Your task to perform on an android device: open a new tab in the chrome app Image 0: 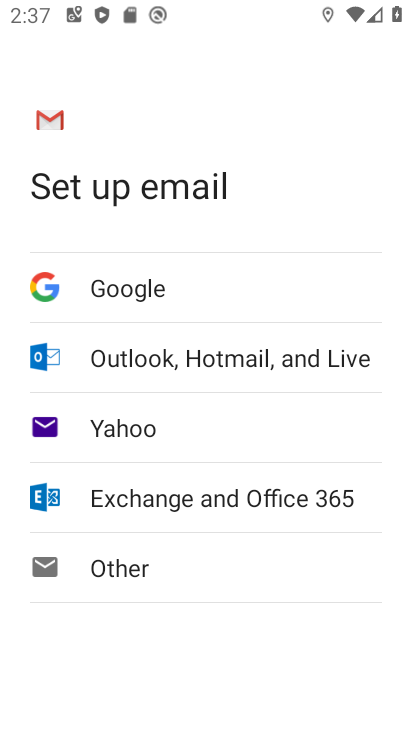
Step 0: drag from (210, 669) to (262, 145)
Your task to perform on an android device: open a new tab in the chrome app Image 1: 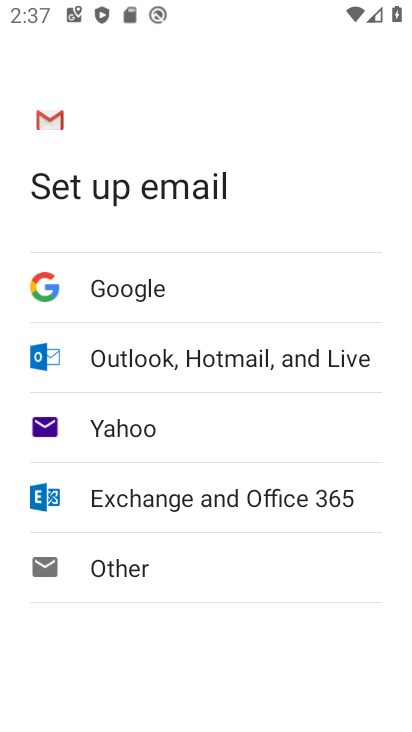
Step 1: press home button
Your task to perform on an android device: open a new tab in the chrome app Image 2: 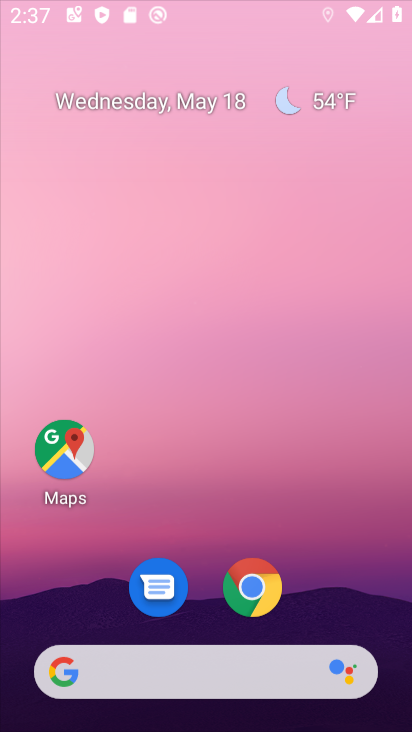
Step 2: drag from (203, 652) to (219, 51)
Your task to perform on an android device: open a new tab in the chrome app Image 3: 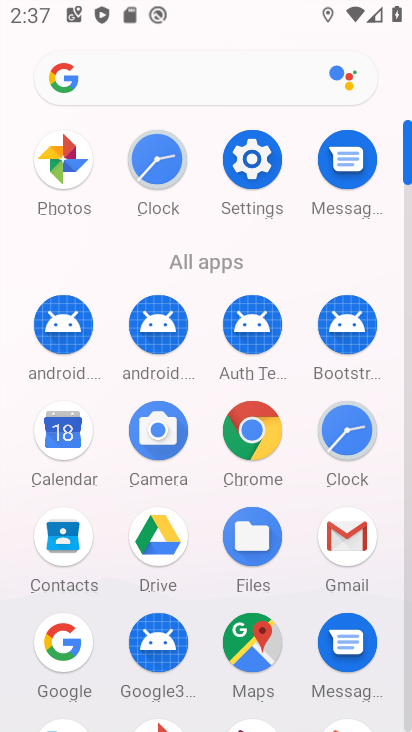
Step 3: click (253, 442)
Your task to perform on an android device: open a new tab in the chrome app Image 4: 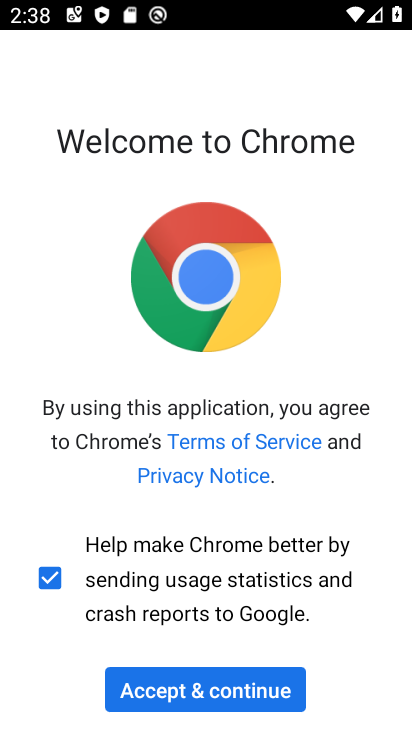
Step 4: click (163, 685)
Your task to perform on an android device: open a new tab in the chrome app Image 5: 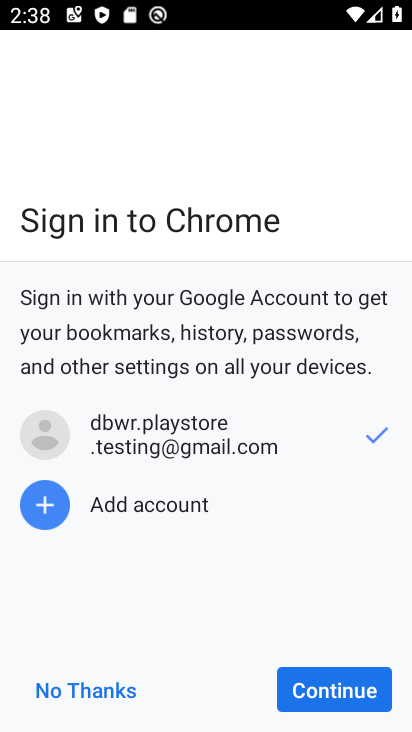
Step 5: click (303, 701)
Your task to perform on an android device: open a new tab in the chrome app Image 6: 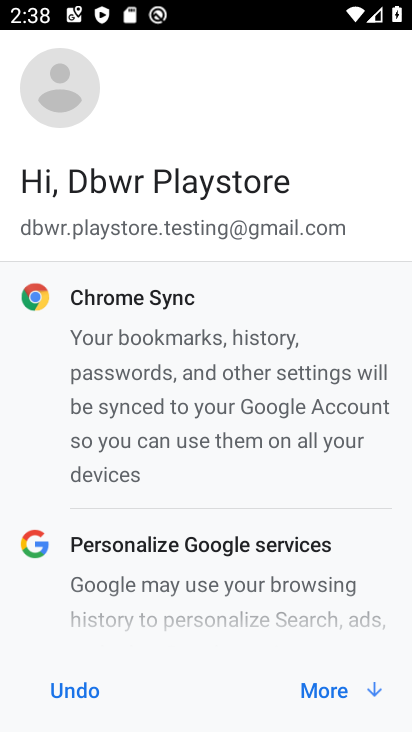
Step 6: click (309, 694)
Your task to perform on an android device: open a new tab in the chrome app Image 7: 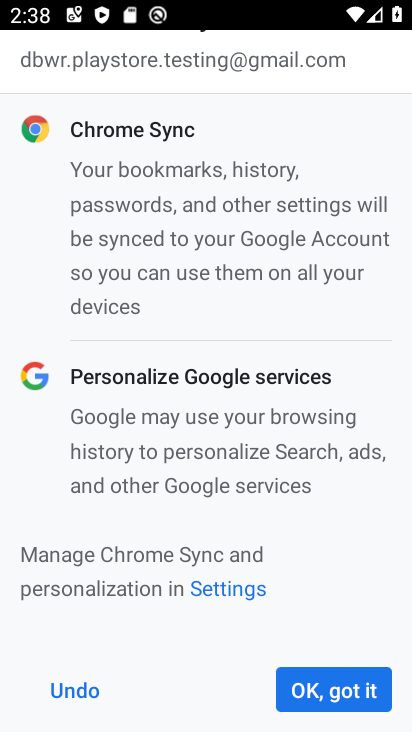
Step 7: click (307, 686)
Your task to perform on an android device: open a new tab in the chrome app Image 8: 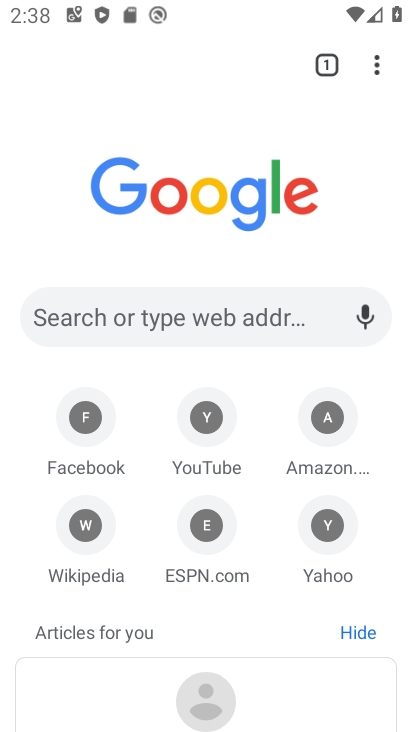
Step 8: click (384, 56)
Your task to perform on an android device: open a new tab in the chrome app Image 9: 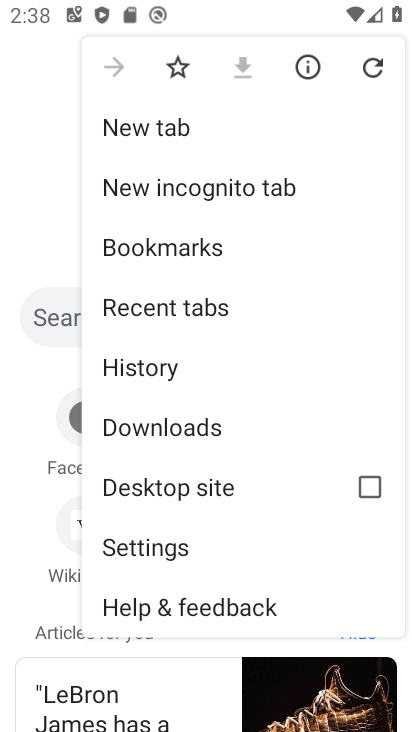
Step 9: drag from (233, 485) to (246, 12)
Your task to perform on an android device: open a new tab in the chrome app Image 10: 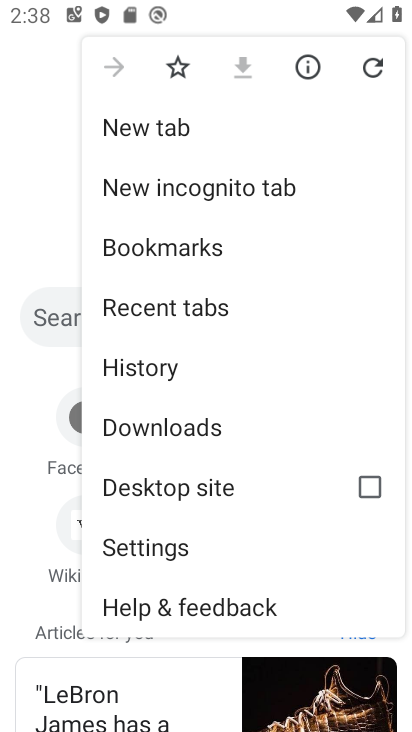
Step 10: click (50, 97)
Your task to perform on an android device: open a new tab in the chrome app Image 11: 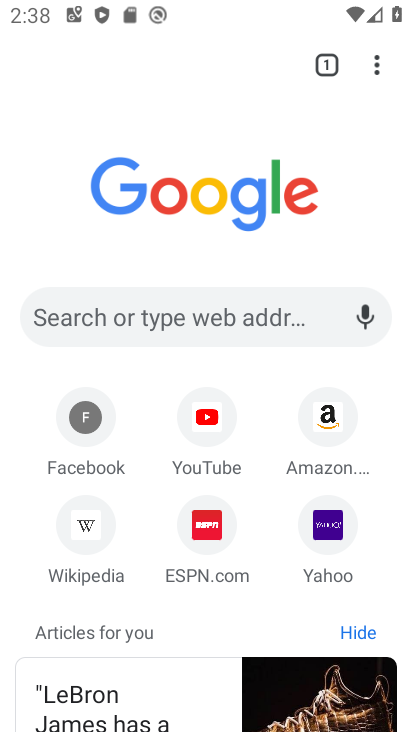
Step 11: click (328, 58)
Your task to perform on an android device: open a new tab in the chrome app Image 12: 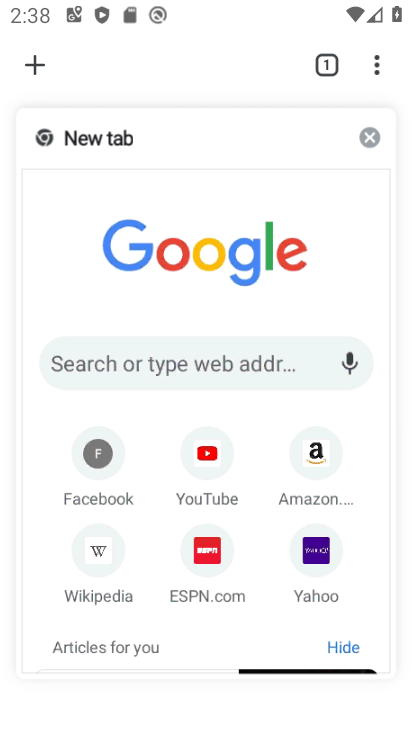
Step 12: click (28, 57)
Your task to perform on an android device: open a new tab in the chrome app Image 13: 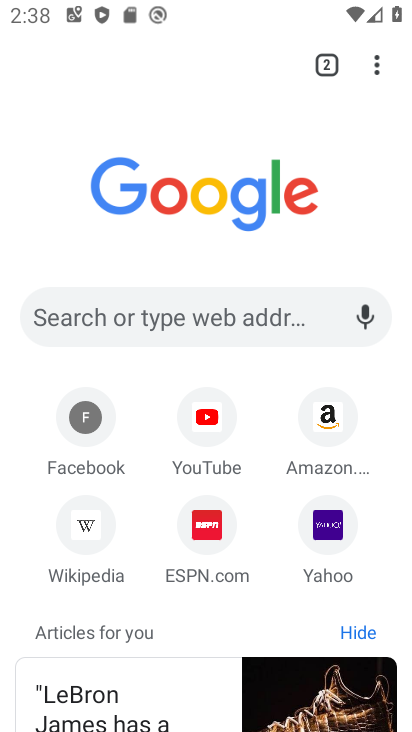
Step 13: task complete